Your task to perform on an android device: set an alarm Image 0: 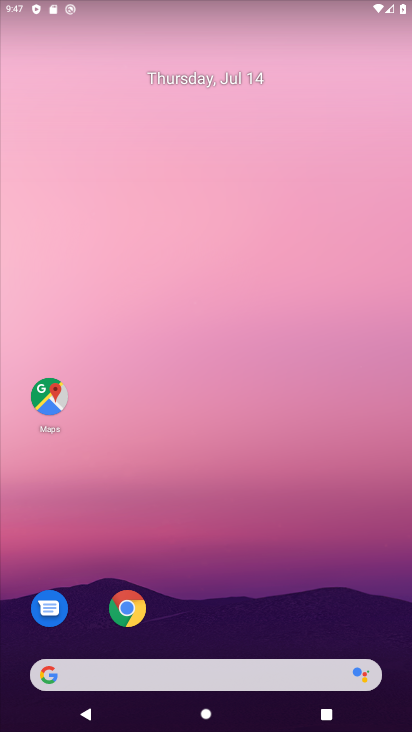
Step 0: drag from (217, 640) to (304, 116)
Your task to perform on an android device: set an alarm Image 1: 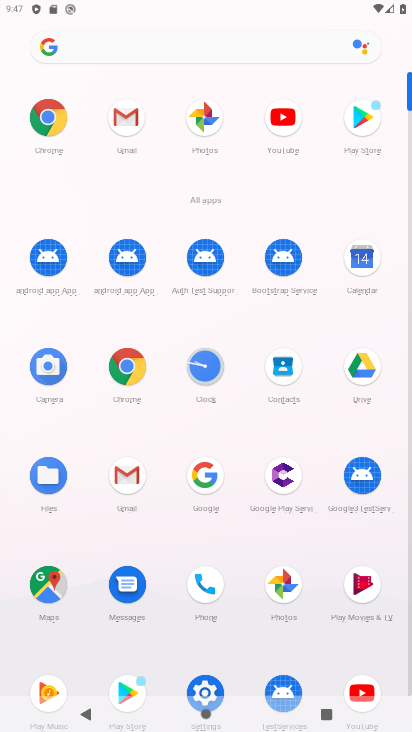
Step 1: click (202, 363)
Your task to perform on an android device: set an alarm Image 2: 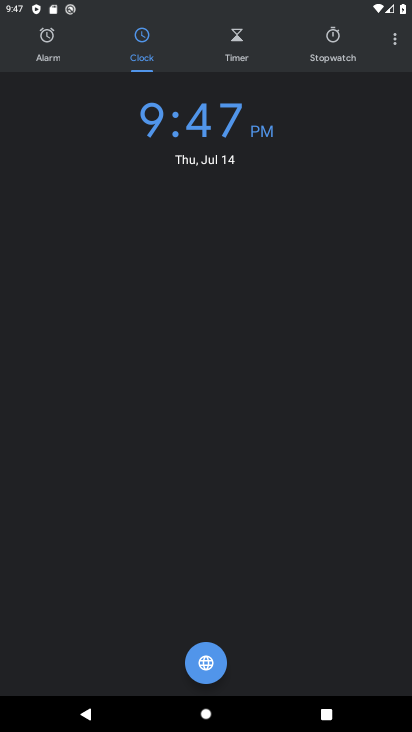
Step 2: click (41, 47)
Your task to perform on an android device: set an alarm Image 3: 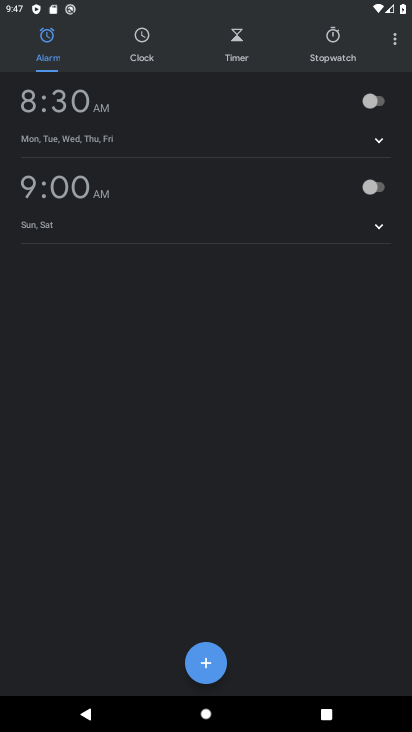
Step 3: click (198, 656)
Your task to perform on an android device: set an alarm Image 4: 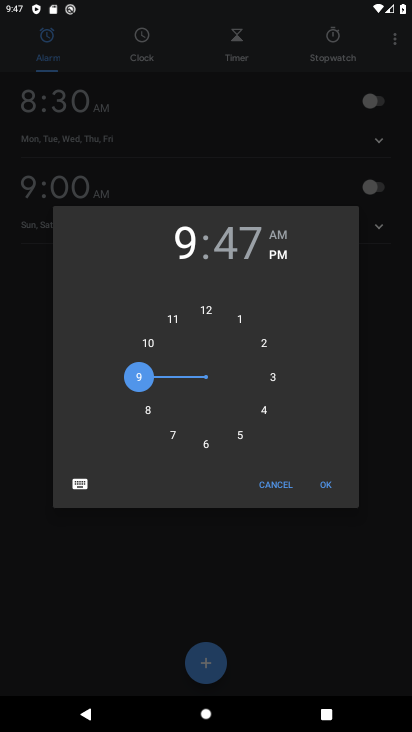
Step 4: click (330, 486)
Your task to perform on an android device: set an alarm Image 5: 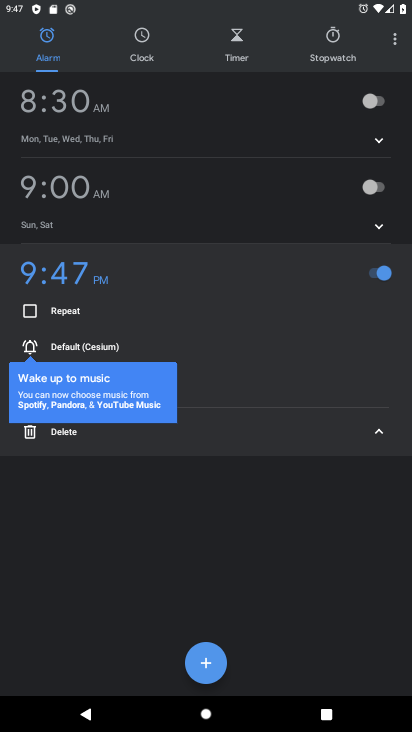
Step 5: click (386, 435)
Your task to perform on an android device: set an alarm Image 6: 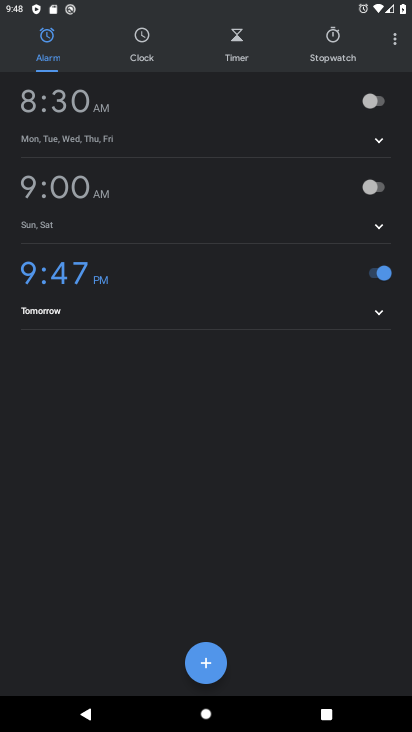
Step 6: task complete